Your task to perform on an android device: Go to Reddit.com Image 0: 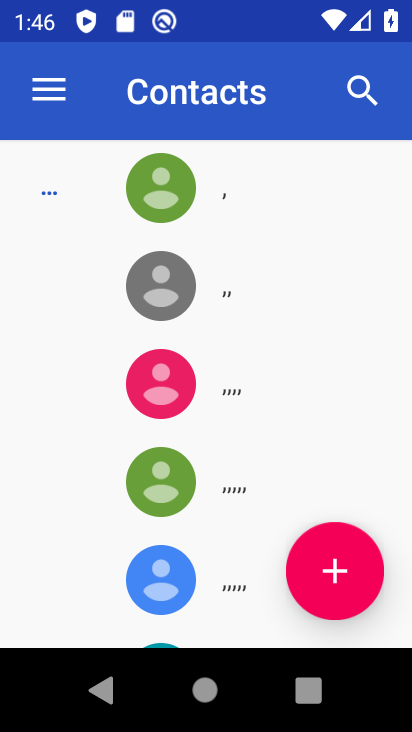
Step 0: press home button
Your task to perform on an android device: Go to Reddit.com Image 1: 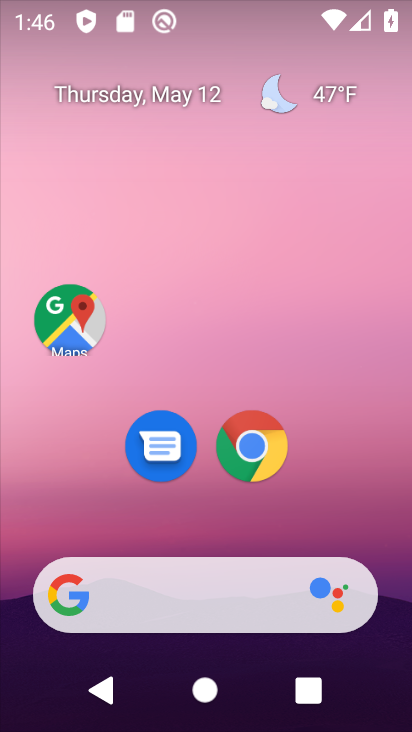
Step 1: click (264, 459)
Your task to perform on an android device: Go to Reddit.com Image 2: 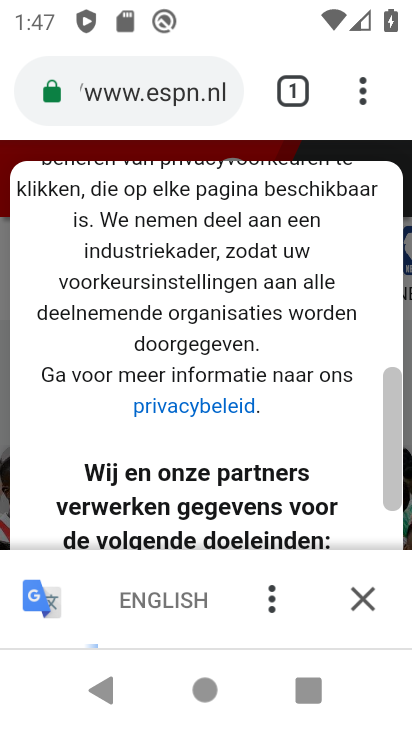
Step 2: click (300, 94)
Your task to perform on an android device: Go to Reddit.com Image 3: 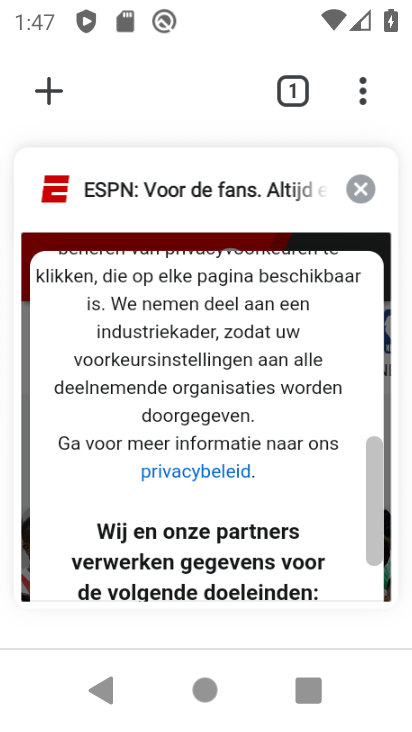
Step 3: click (38, 77)
Your task to perform on an android device: Go to Reddit.com Image 4: 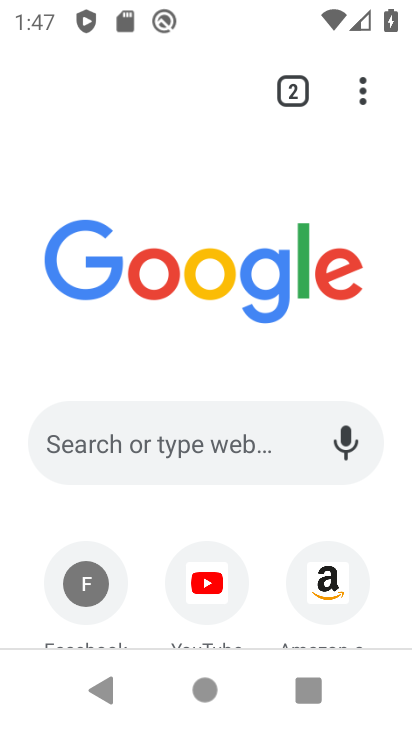
Step 4: click (182, 451)
Your task to perform on an android device: Go to Reddit.com Image 5: 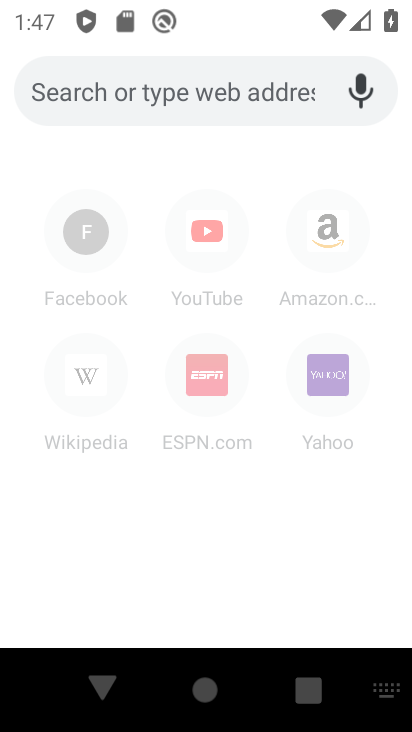
Step 5: type "reddit"
Your task to perform on an android device: Go to Reddit.com Image 6: 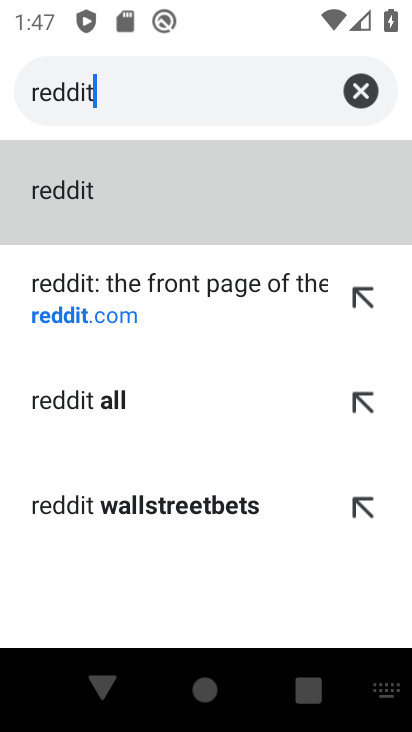
Step 6: click (6, 310)
Your task to perform on an android device: Go to Reddit.com Image 7: 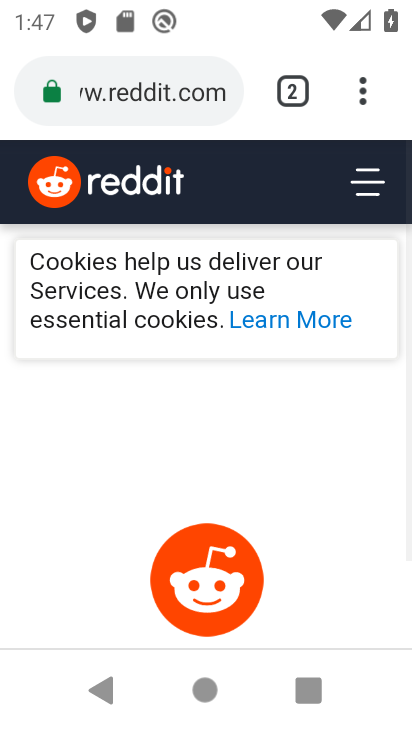
Step 7: task complete